Your task to perform on an android device: see creations saved in the google photos Image 0: 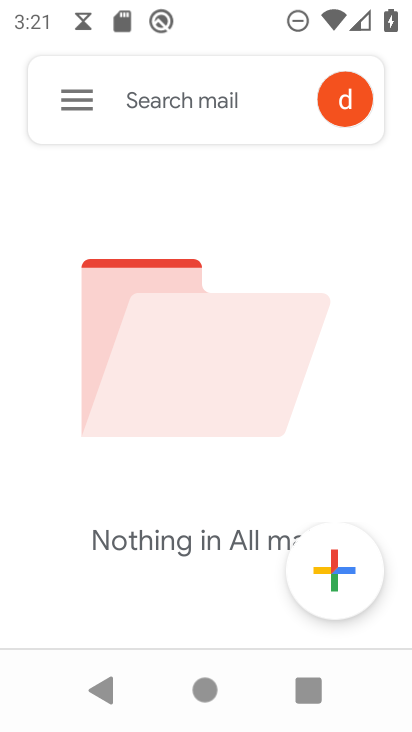
Step 0: press home button
Your task to perform on an android device: see creations saved in the google photos Image 1: 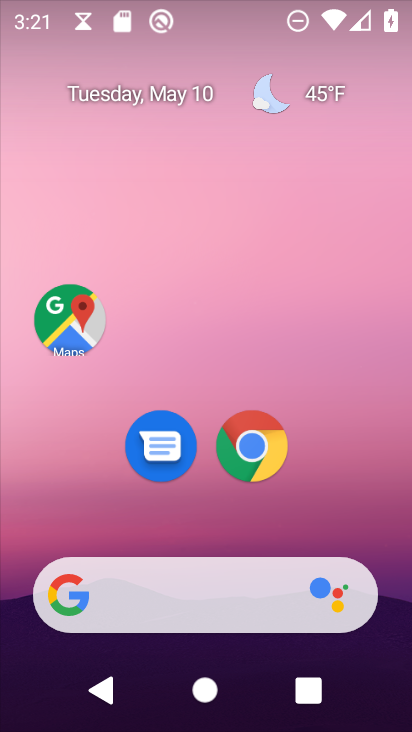
Step 1: drag from (341, 428) to (373, 19)
Your task to perform on an android device: see creations saved in the google photos Image 2: 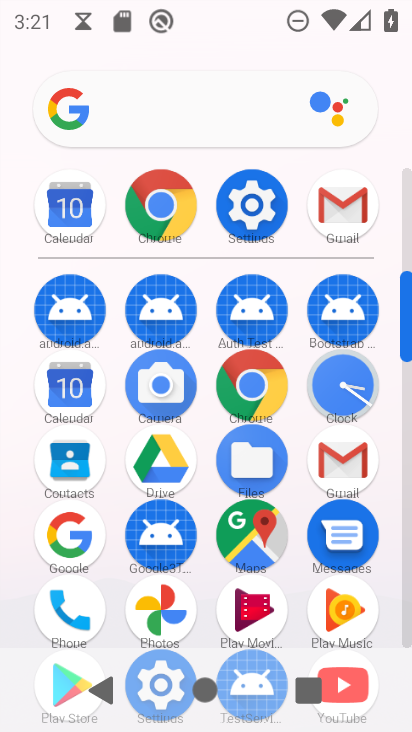
Step 2: click (152, 628)
Your task to perform on an android device: see creations saved in the google photos Image 3: 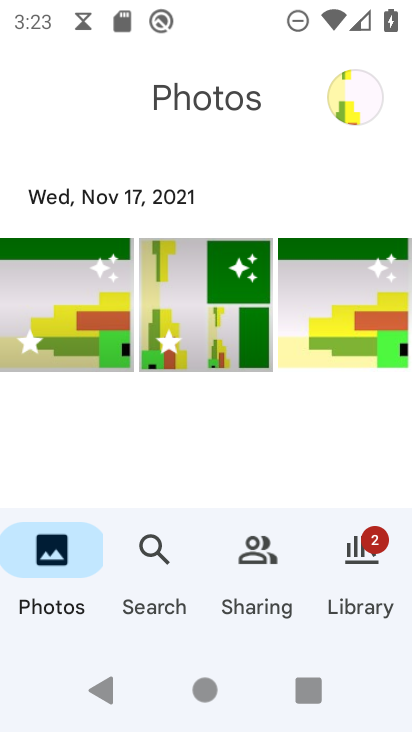
Step 3: task complete